Your task to perform on an android device: Go to Reddit.com Image 0: 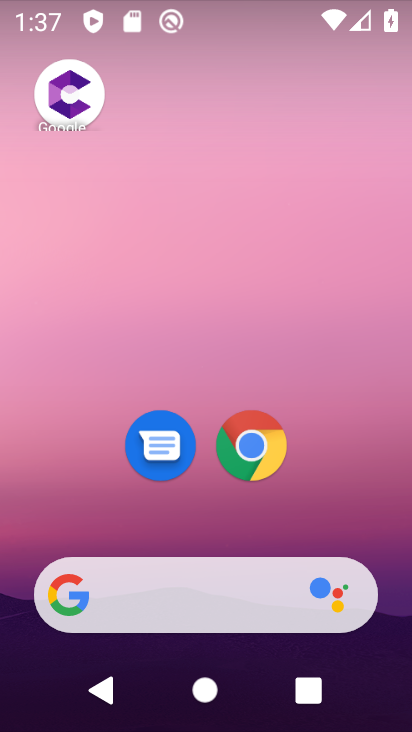
Step 0: drag from (213, 510) to (185, 72)
Your task to perform on an android device: Go to Reddit.com Image 1: 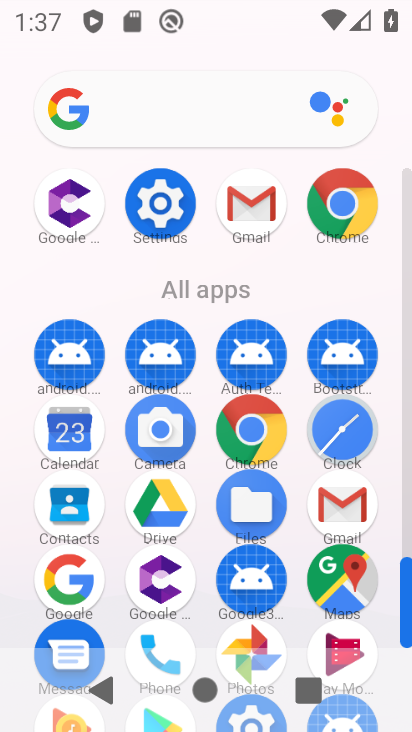
Step 1: click (64, 581)
Your task to perform on an android device: Go to Reddit.com Image 2: 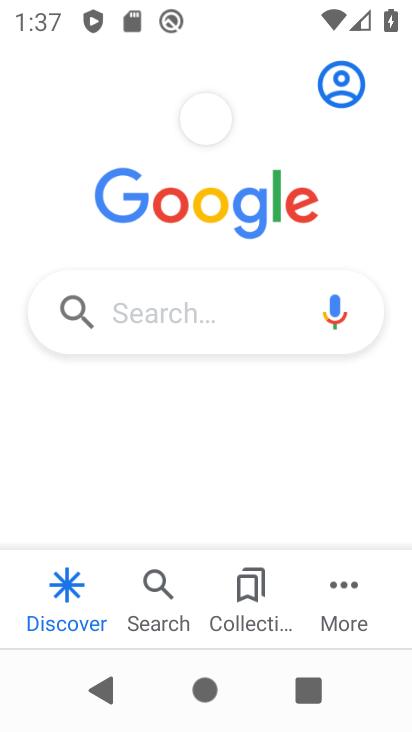
Step 2: click (167, 301)
Your task to perform on an android device: Go to Reddit.com Image 3: 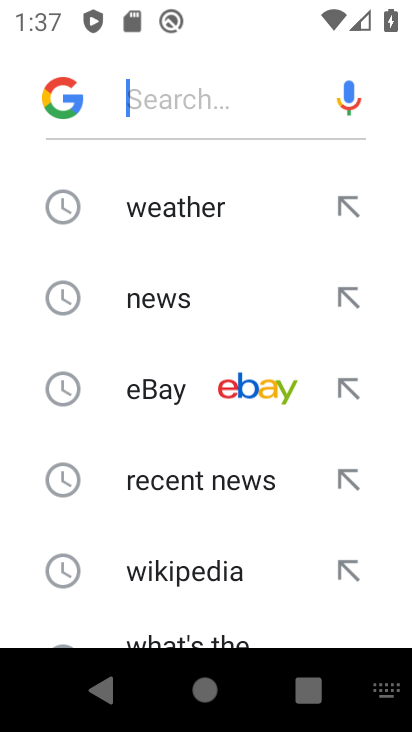
Step 3: drag from (199, 566) to (168, 233)
Your task to perform on an android device: Go to Reddit.com Image 4: 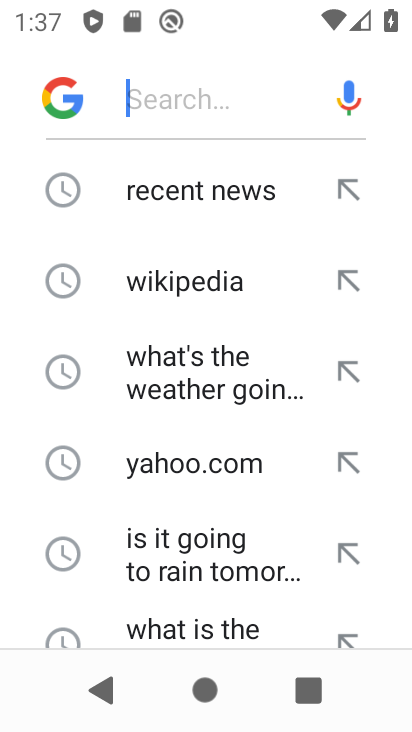
Step 4: drag from (138, 588) to (142, 241)
Your task to perform on an android device: Go to Reddit.com Image 5: 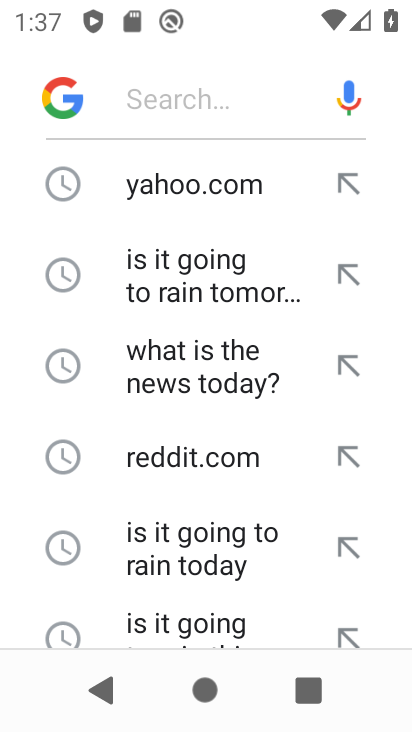
Step 5: drag from (189, 593) to (184, 338)
Your task to perform on an android device: Go to Reddit.com Image 6: 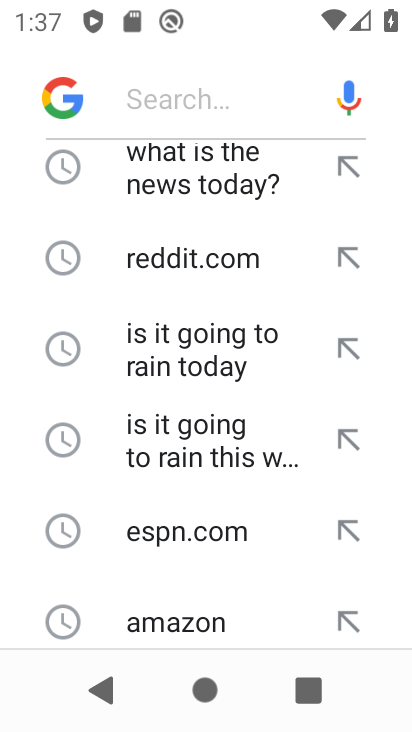
Step 6: click (194, 262)
Your task to perform on an android device: Go to Reddit.com Image 7: 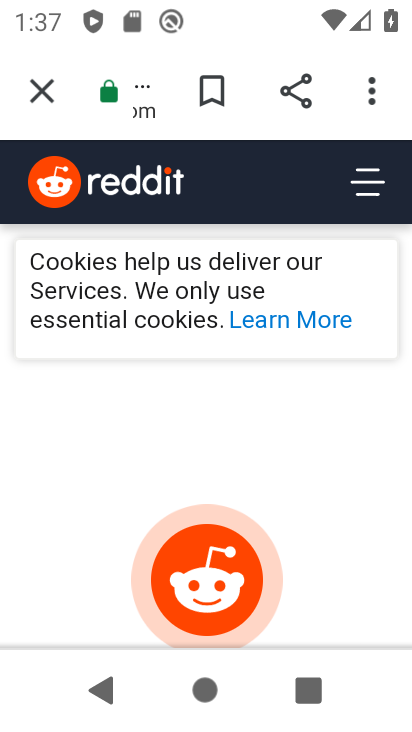
Step 7: task complete